Your task to perform on an android device: Open location settings Image 0: 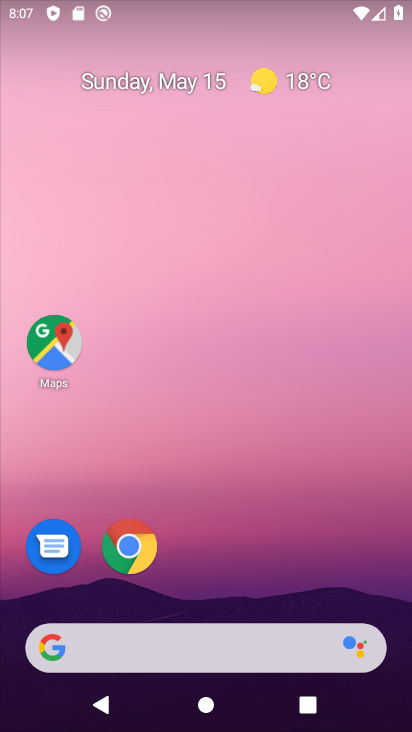
Step 0: drag from (245, 578) to (268, 147)
Your task to perform on an android device: Open location settings Image 1: 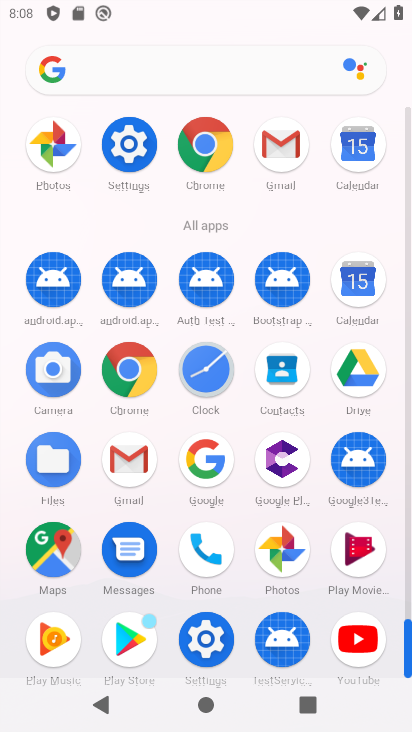
Step 1: click (116, 129)
Your task to perform on an android device: Open location settings Image 2: 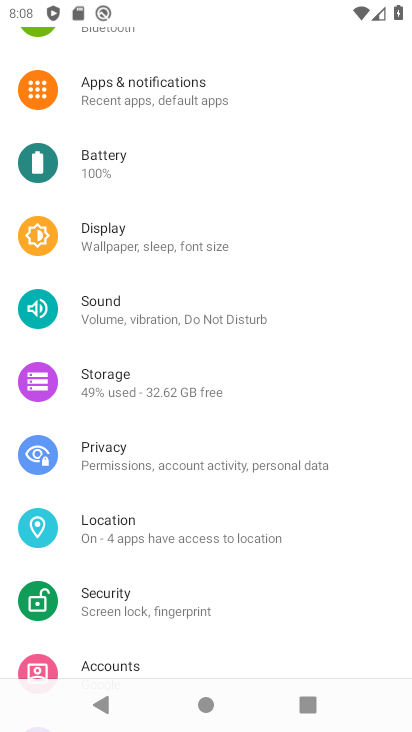
Step 2: click (155, 507)
Your task to perform on an android device: Open location settings Image 3: 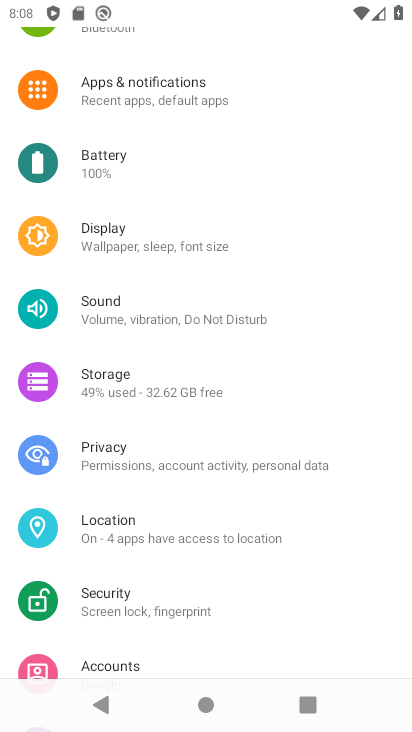
Step 3: click (164, 531)
Your task to perform on an android device: Open location settings Image 4: 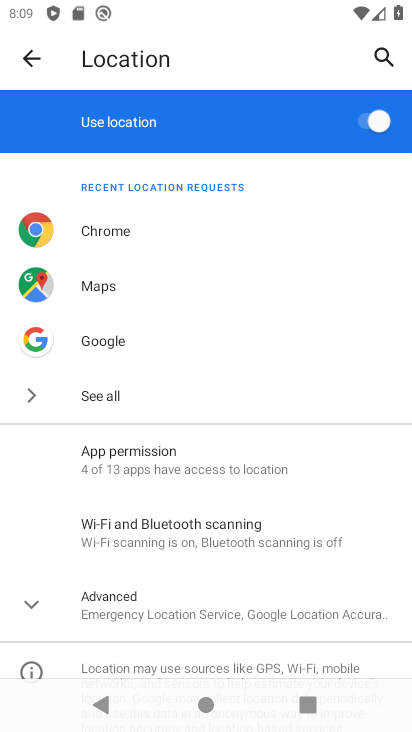
Step 4: task complete